Your task to perform on an android device: Go to wifi settings Image 0: 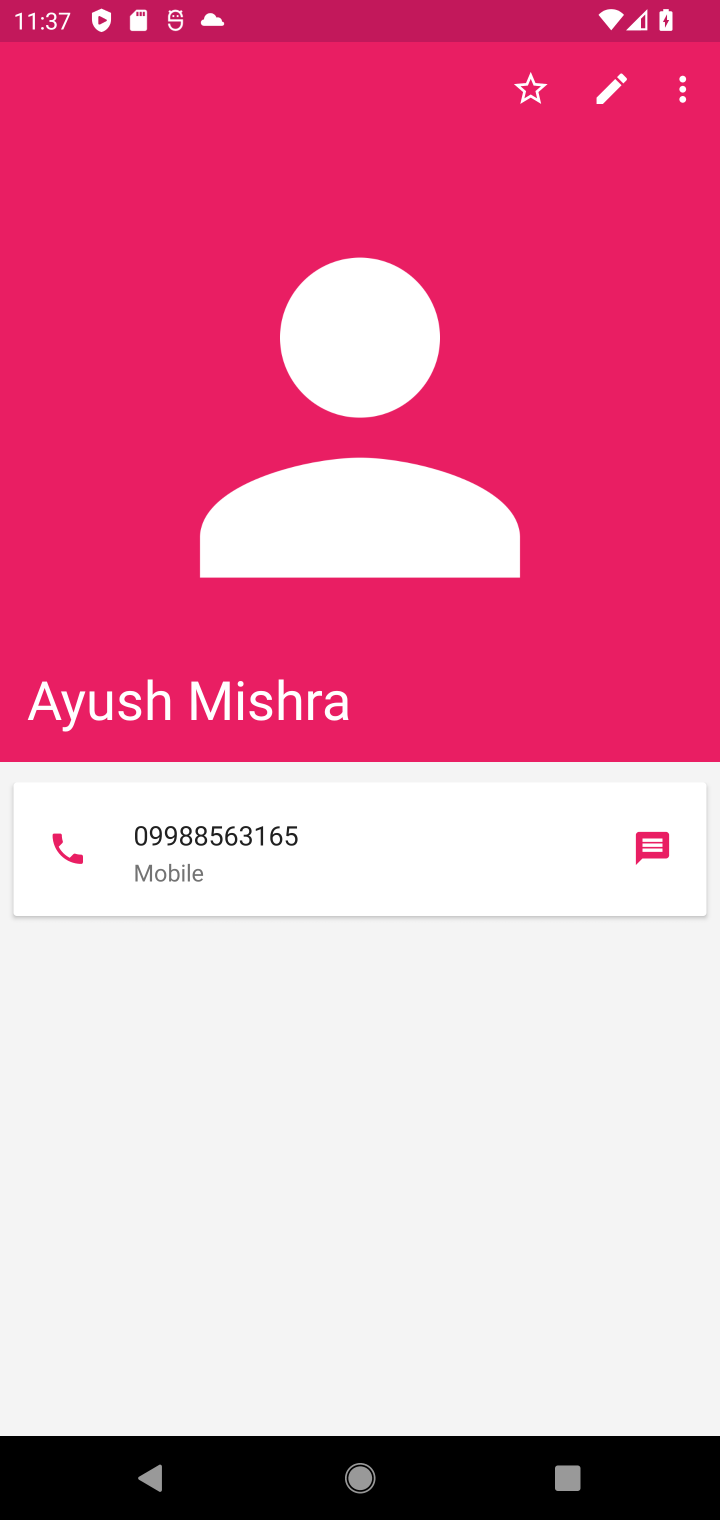
Step 0: press home button
Your task to perform on an android device: Go to wifi settings Image 1: 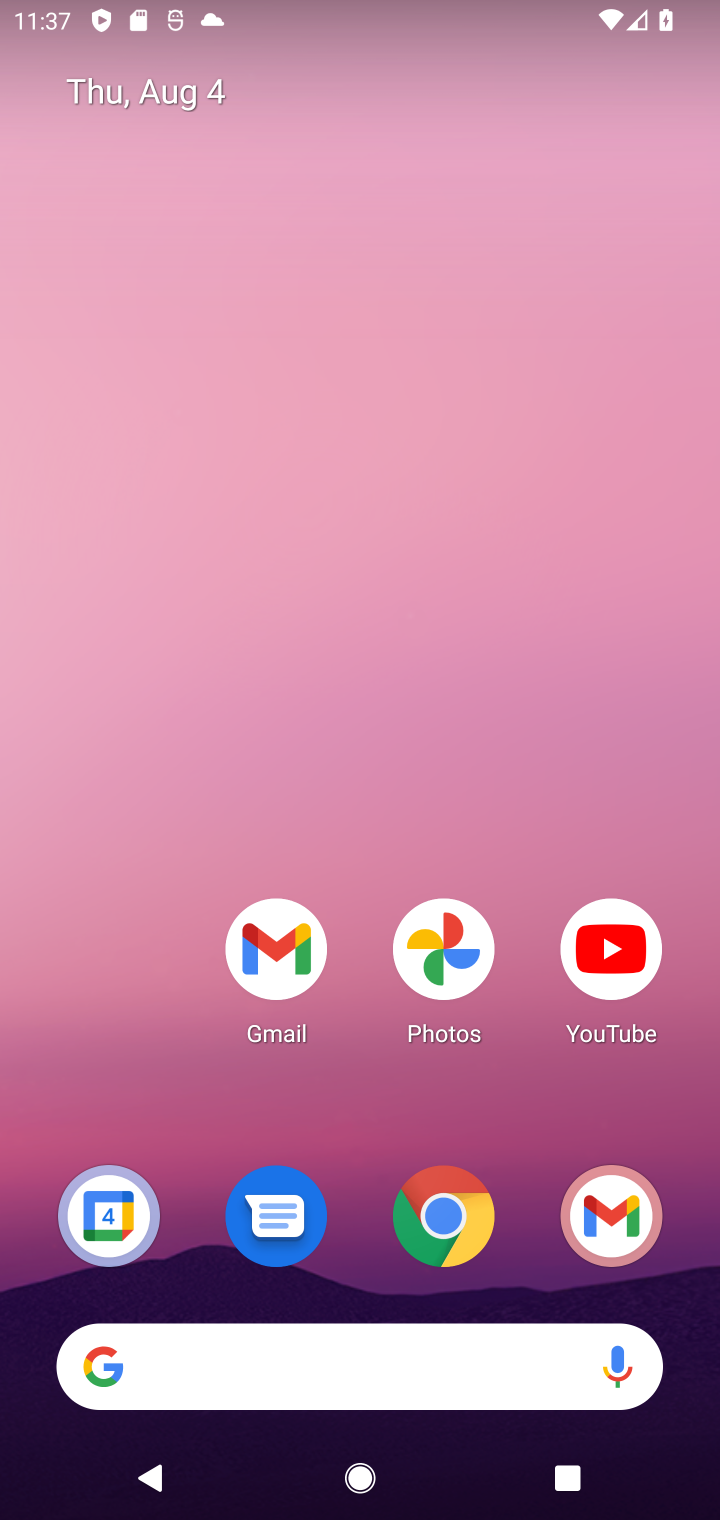
Step 1: drag from (306, 1396) to (361, 256)
Your task to perform on an android device: Go to wifi settings Image 2: 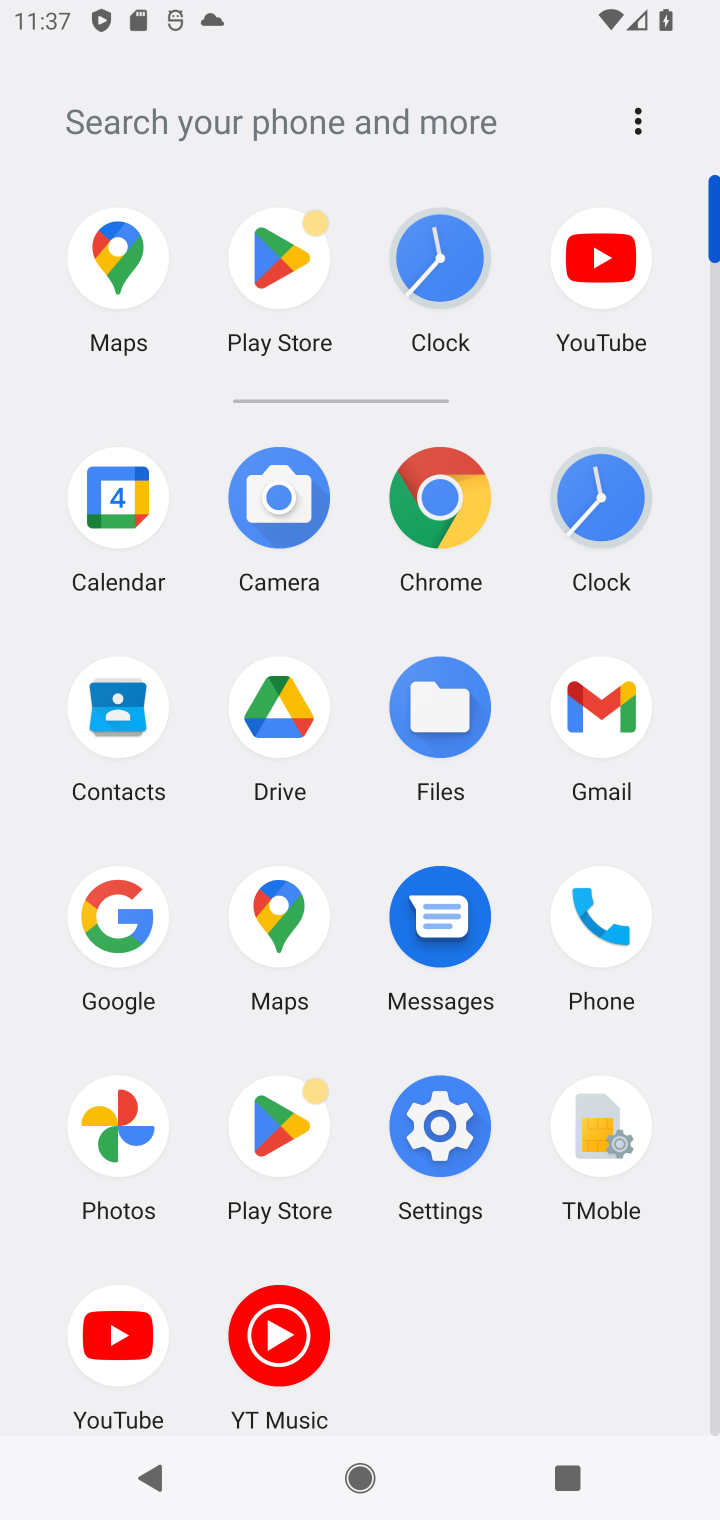
Step 2: click (438, 1129)
Your task to perform on an android device: Go to wifi settings Image 3: 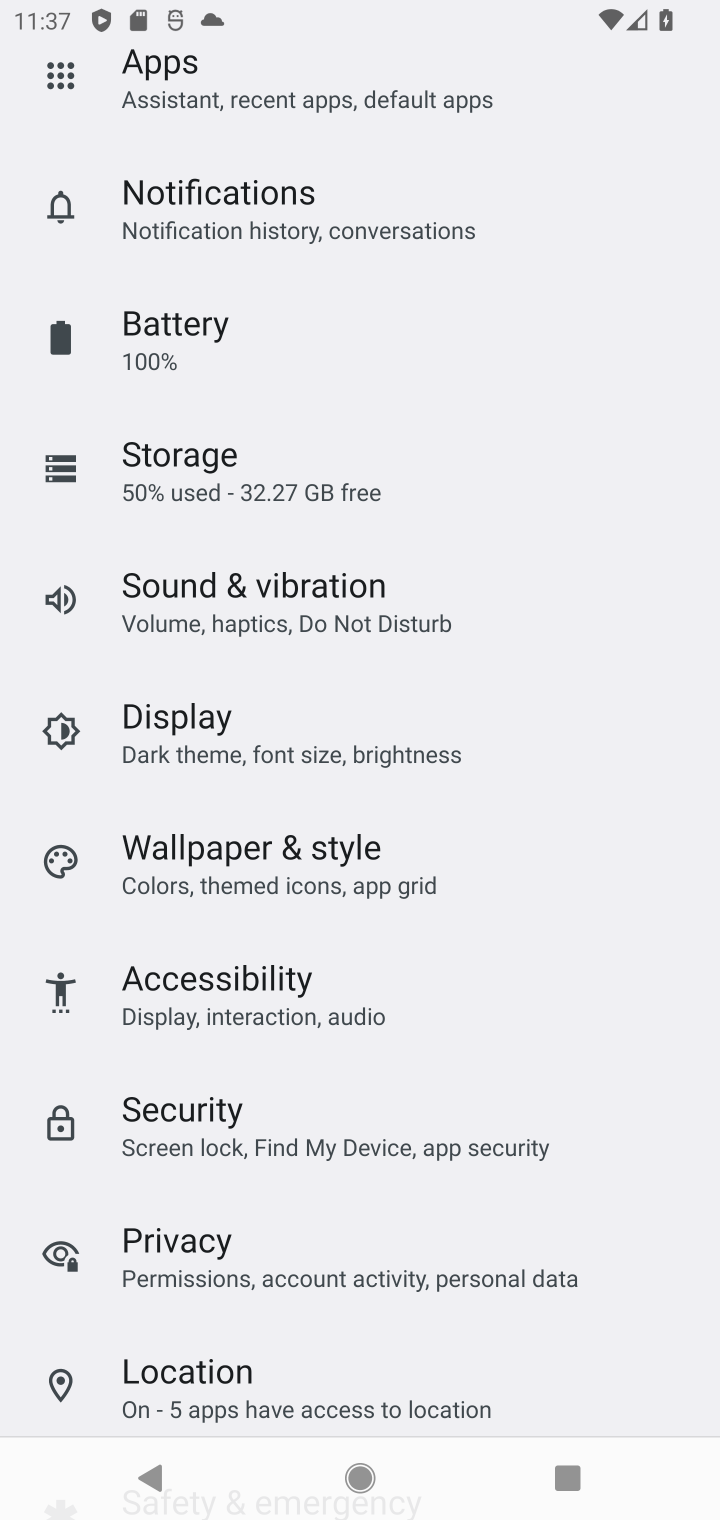
Step 3: drag from (387, 337) to (299, 924)
Your task to perform on an android device: Go to wifi settings Image 4: 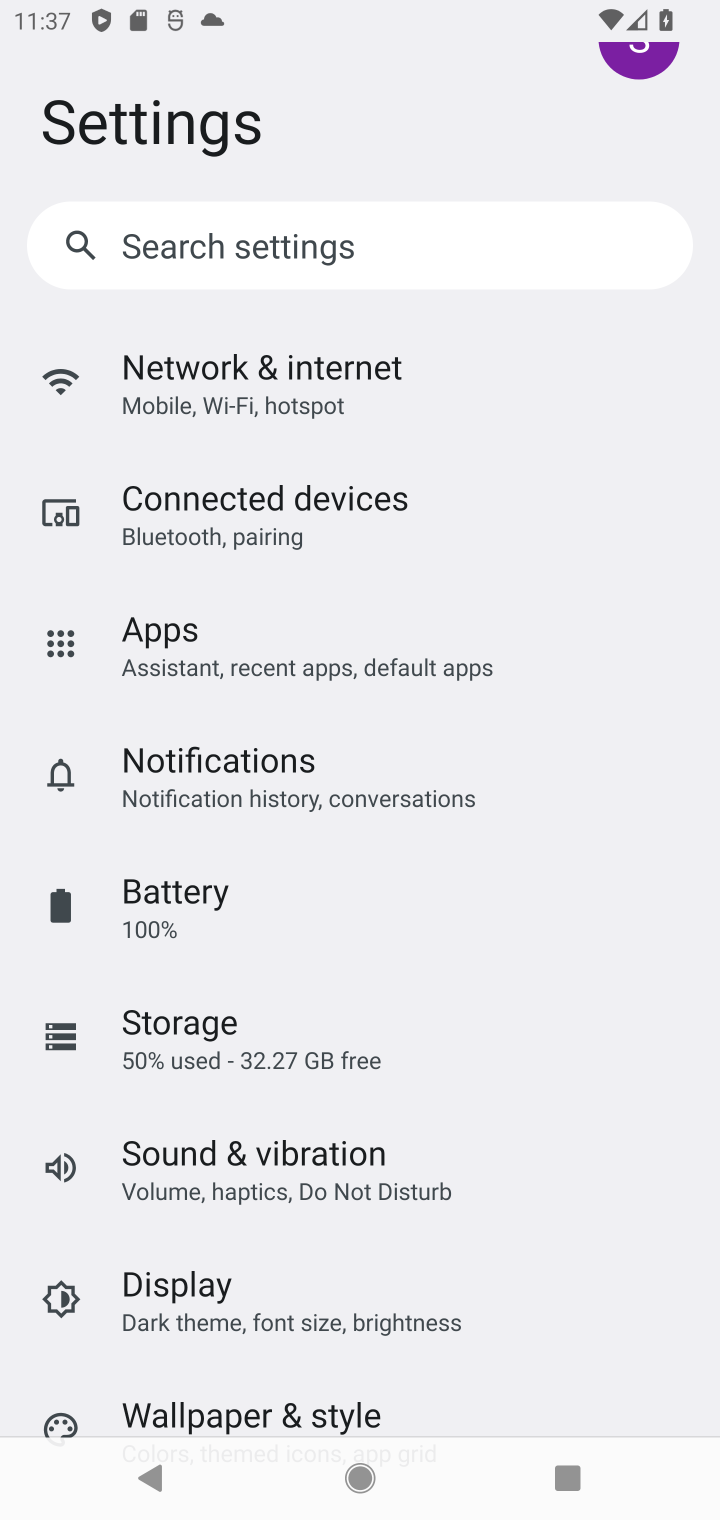
Step 4: drag from (257, 367) to (266, 751)
Your task to perform on an android device: Go to wifi settings Image 5: 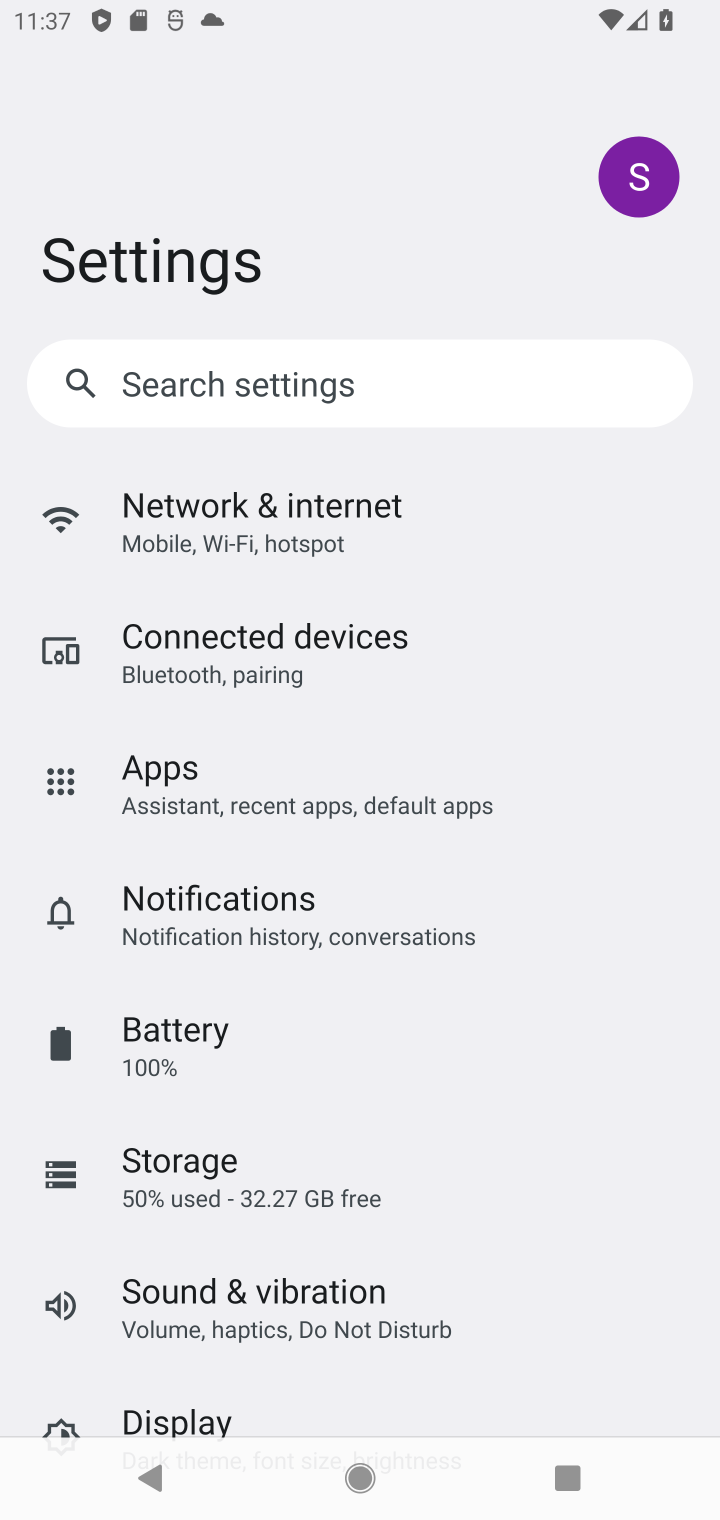
Step 5: click (293, 549)
Your task to perform on an android device: Go to wifi settings Image 6: 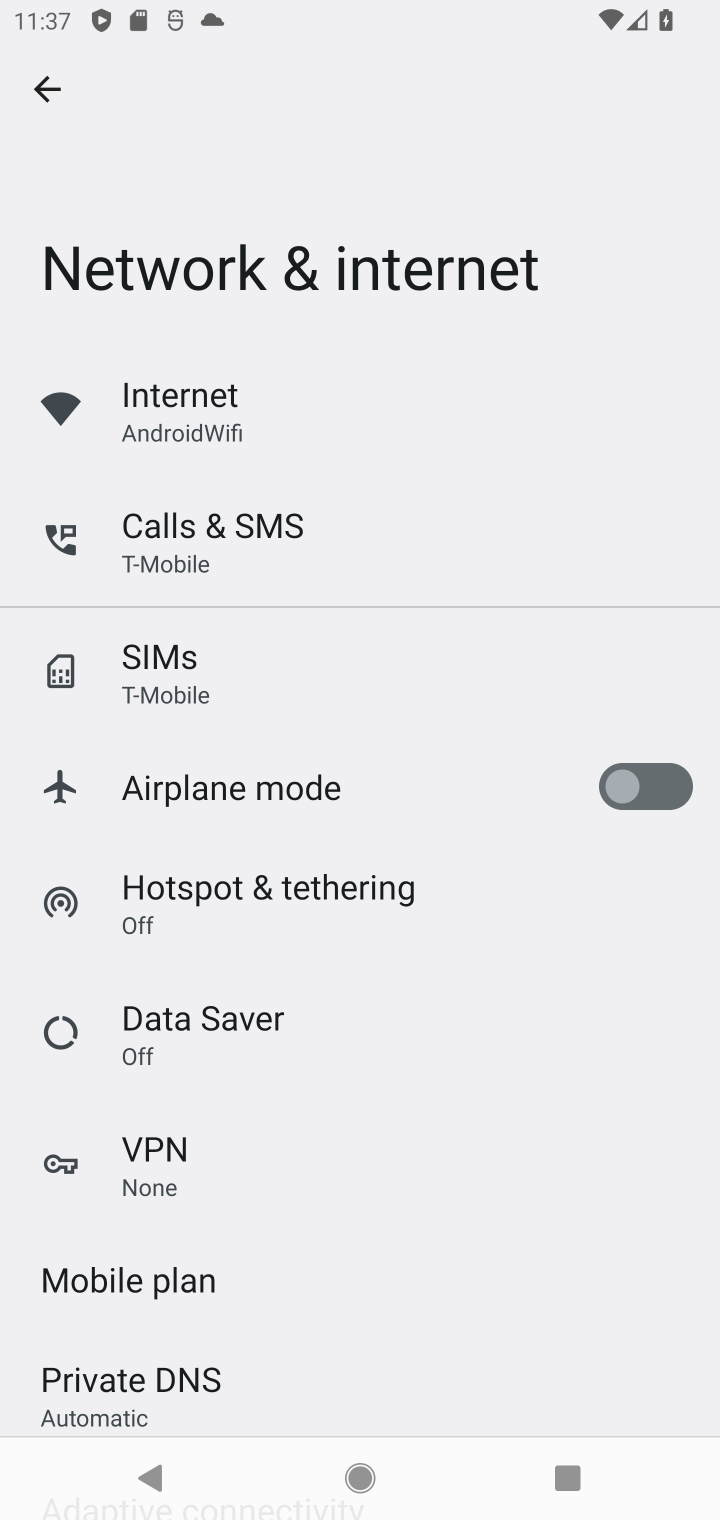
Step 6: click (206, 428)
Your task to perform on an android device: Go to wifi settings Image 7: 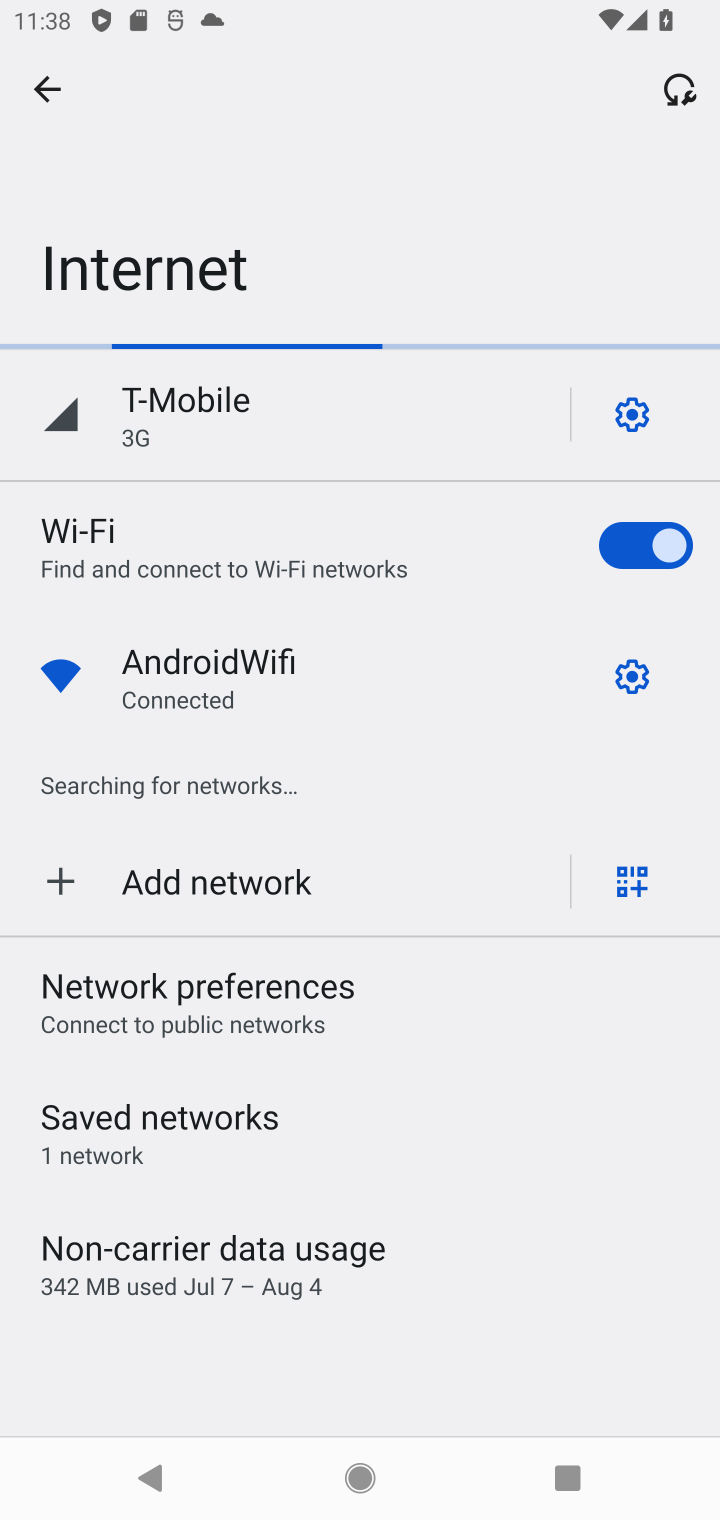
Step 7: click (632, 676)
Your task to perform on an android device: Go to wifi settings Image 8: 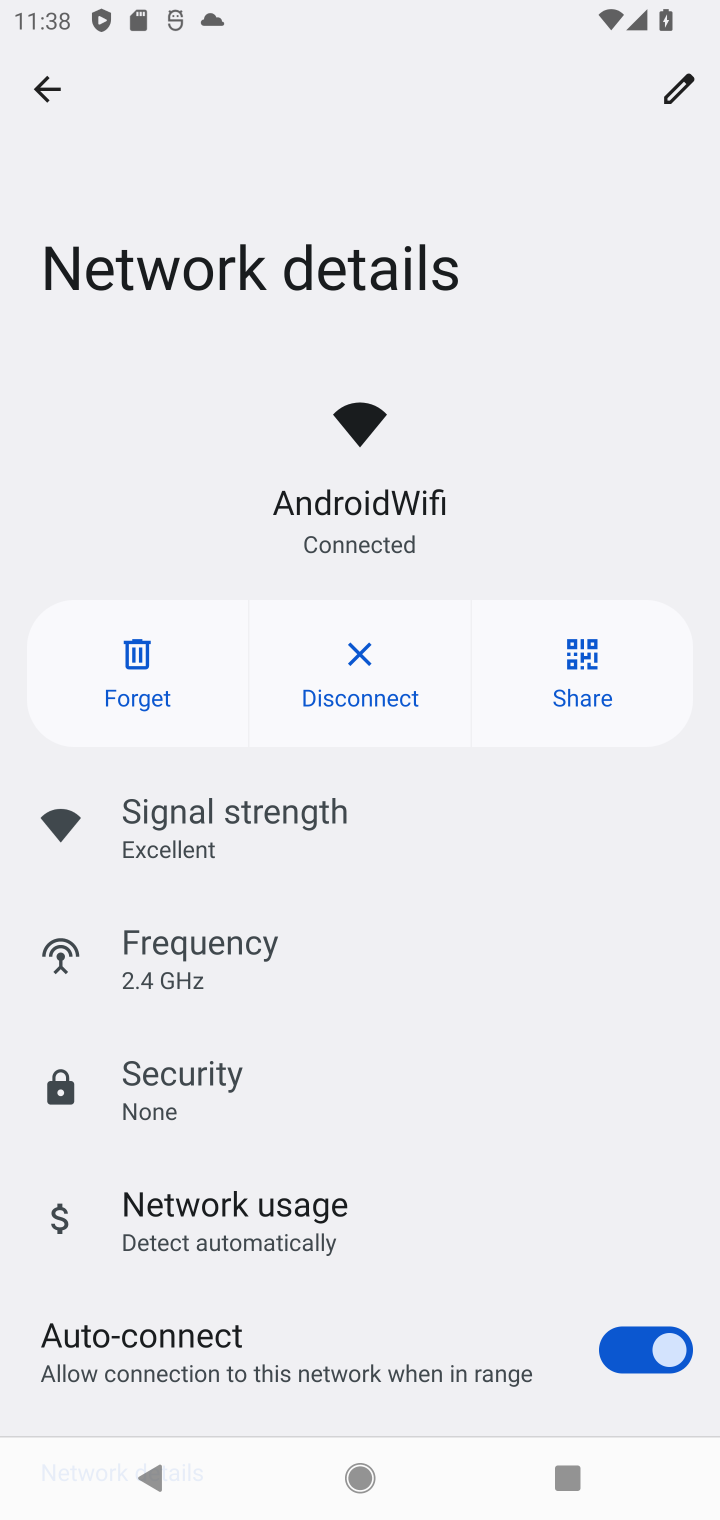
Step 8: task complete